Your task to perform on an android device: Go to eBay Image 0: 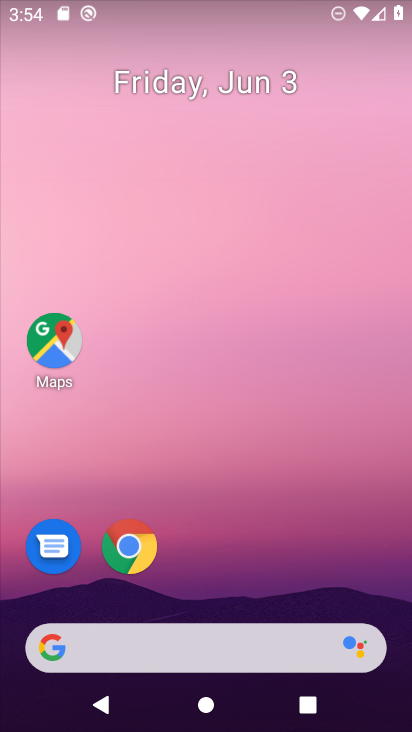
Step 0: click (179, 660)
Your task to perform on an android device: Go to eBay Image 1: 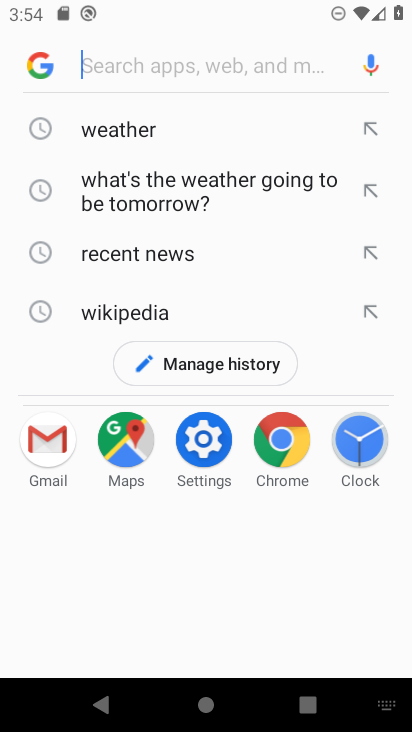
Step 1: type "ebay"
Your task to perform on an android device: Go to eBay Image 2: 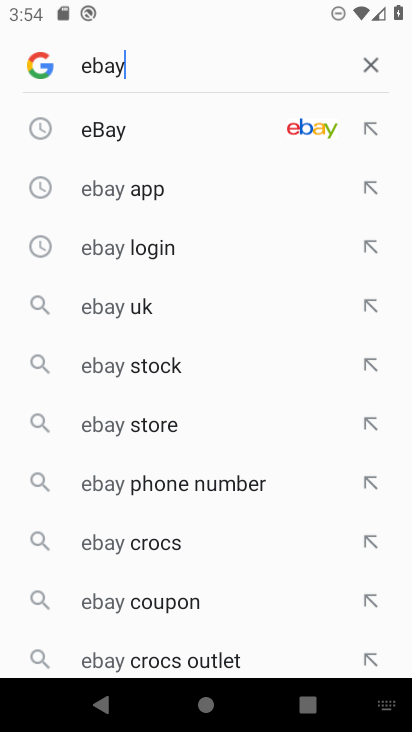
Step 2: click (134, 132)
Your task to perform on an android device: Go to eBay Image 3: 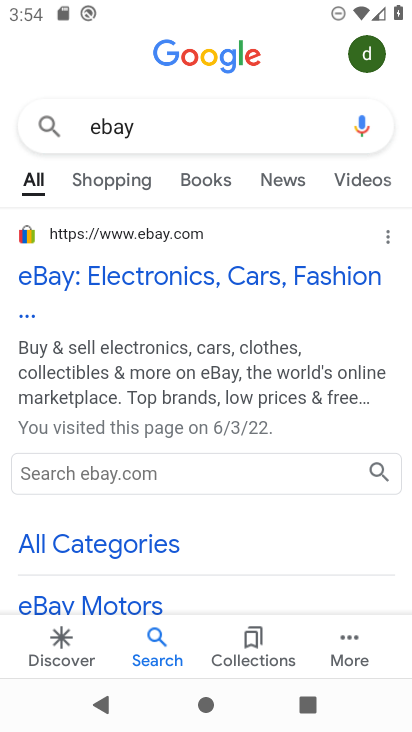
Step 3: click (43, 267)
Your task to perform on an android device: Go to eBay Image 4: 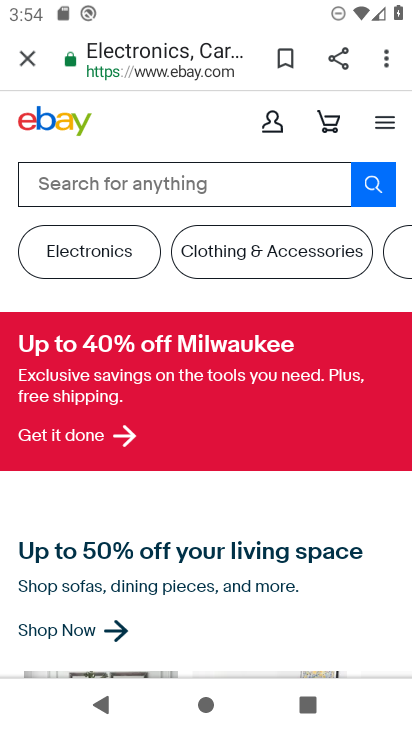
Step 4: task complete